Your task to perform on an android device: What's the weather? Image 0: 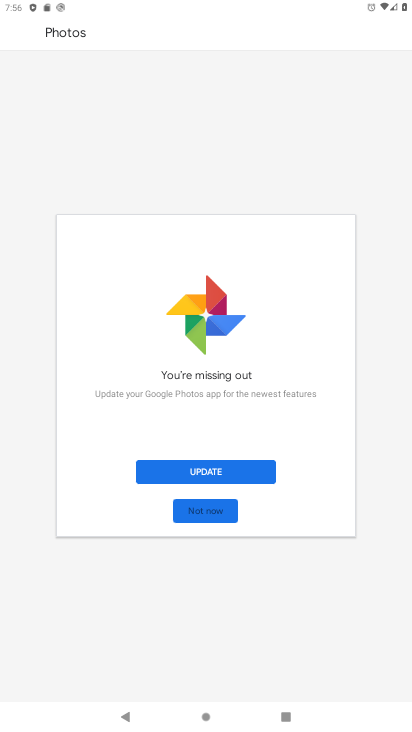
Step 0: press home button
Your task to perform on an android device: What's the weather? Image 1: 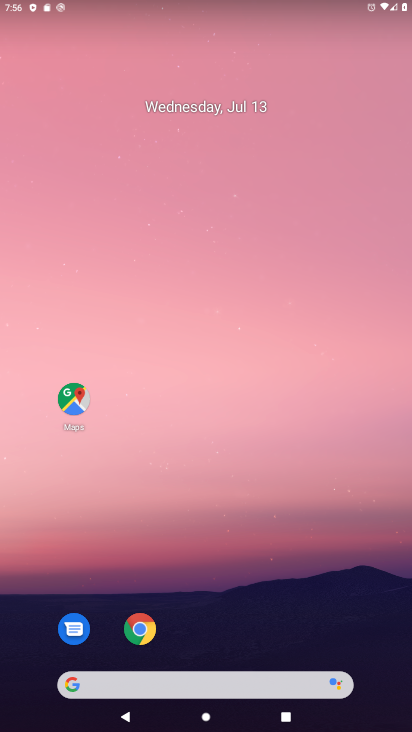
Step 1: click (106, 683)
Your task to perform on an android device: What's the weather? Image 2: 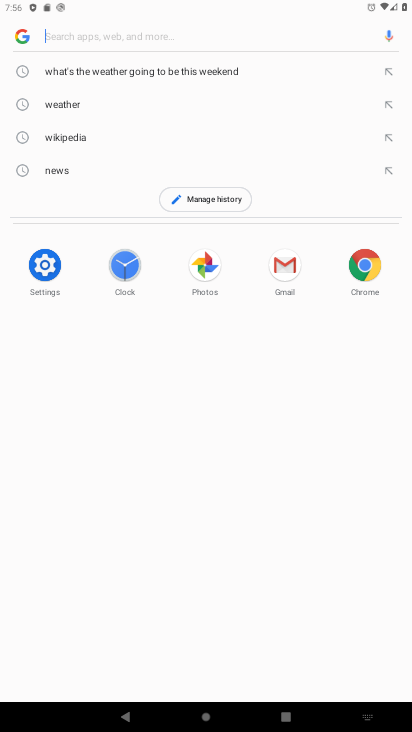
Step 2: click (67, 33)
Your task to perform on an android device: What's the weather? Image 3: 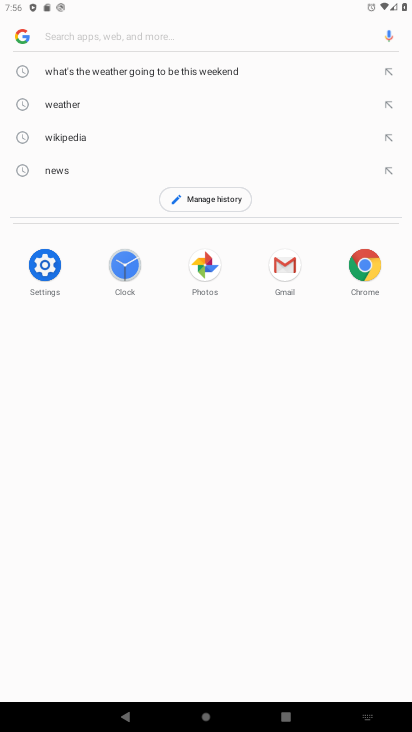
Step 3: type "What's the weather?"
Your task to perform on an android device: What's the weather? Image 4: 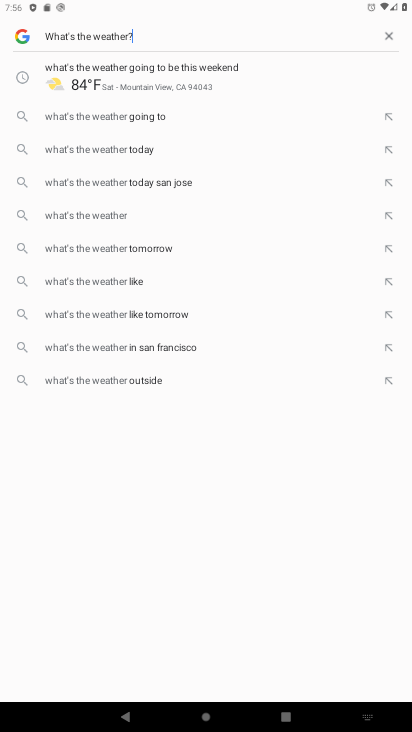
Step 4: type ""
Your task to perform on an android device: What's the weather? Image 5: 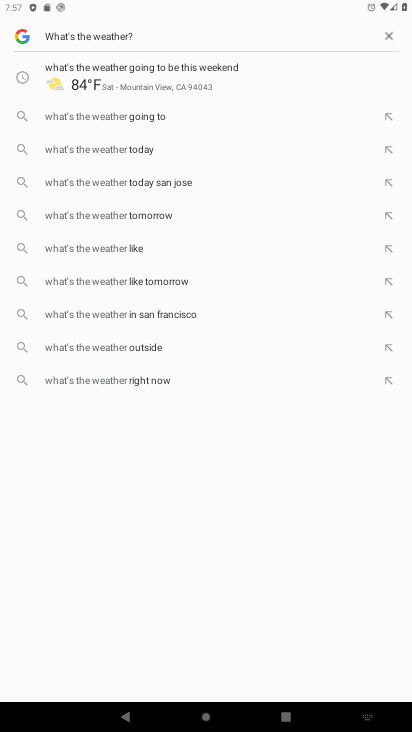
Step 5: type ""
Your task to perform on an android device: What's the weather? Image 6: 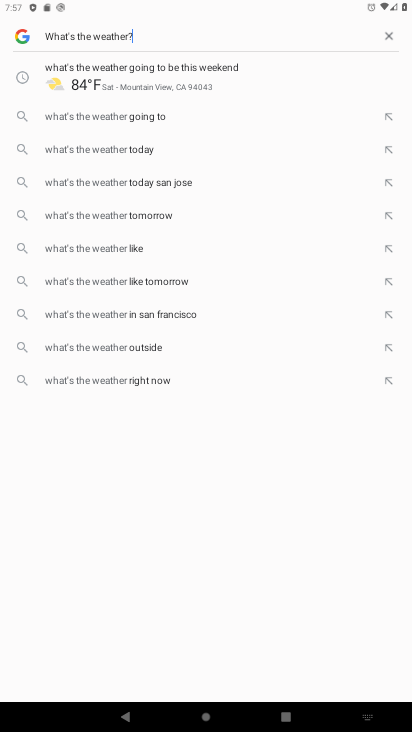
Step 6: type ""
Your task to perform on an android device: What's the weather? Image 7: 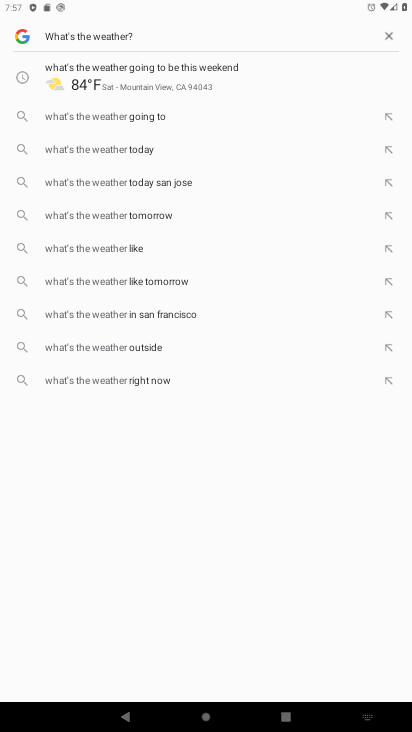
Step 7: type ""
Your task to perform on an android device: What's the weather? Image 8: 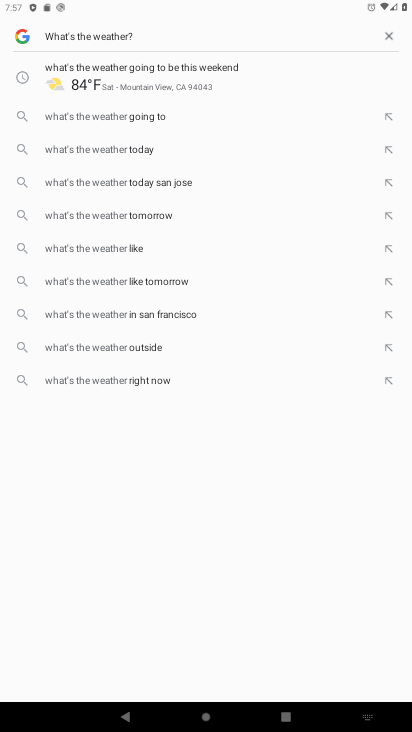
Step 8: task complete